Your task to perform on an android device: set default search engine in the chrome app Image 0: 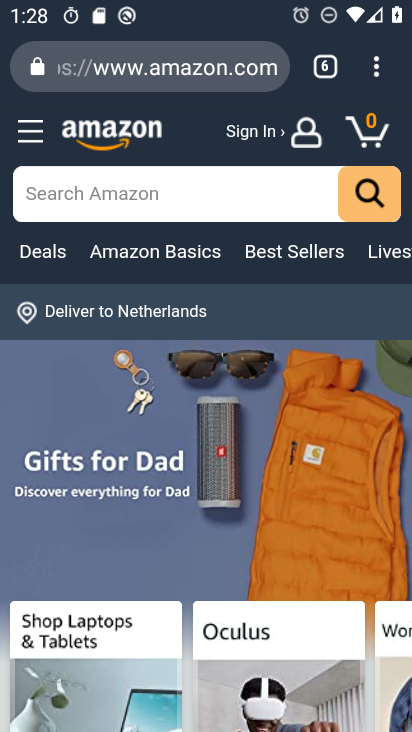
Step 0: click (377, 68)
Your task to perform on an android device: set default search engine in the chrome app Image 1: 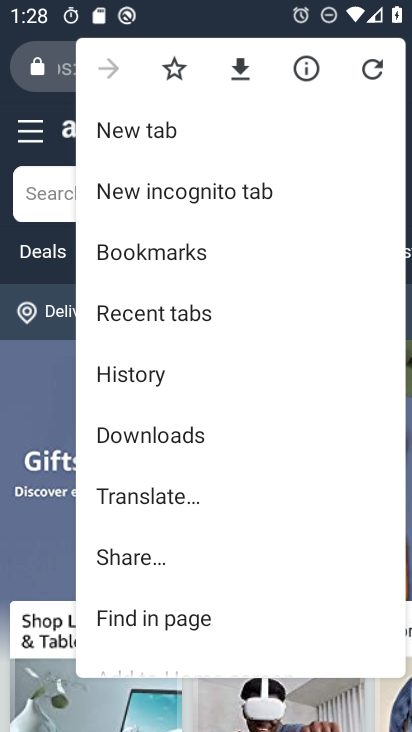
Step 1: click (377, 69)
Your task to perform on an android device: set default search engine in the chrome app Image 2: 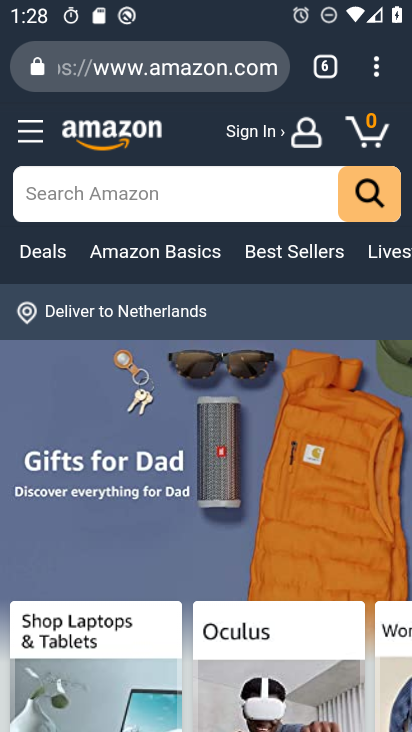
Step 2: click (386, 69)
Your task to perform on an android device: set default search engine in the chrome app Image 3: 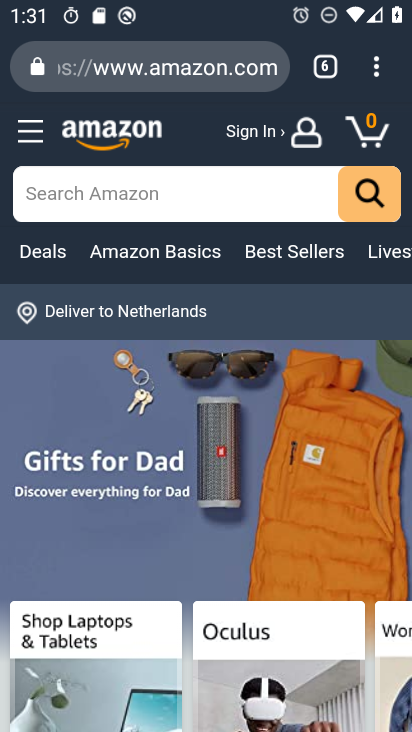
Step 3: click (376, 70)
Your task to perform on an android device: set default search engine in the chrome app Image 4: 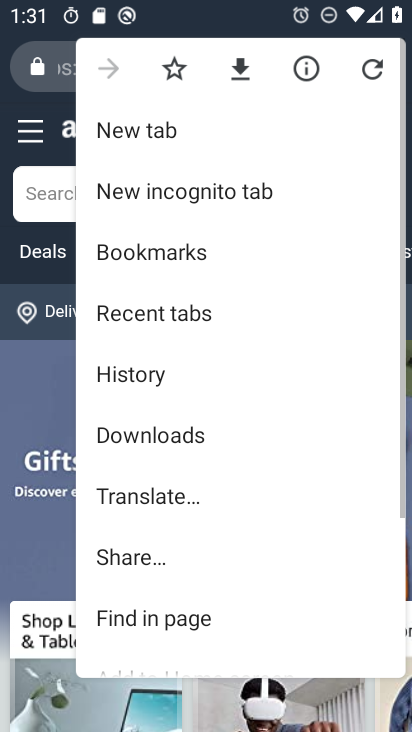
Step 4: drag from (211, 562) to (237, 131)
Your task to perform on an android device: set default search engine in the chrome app Image 5: 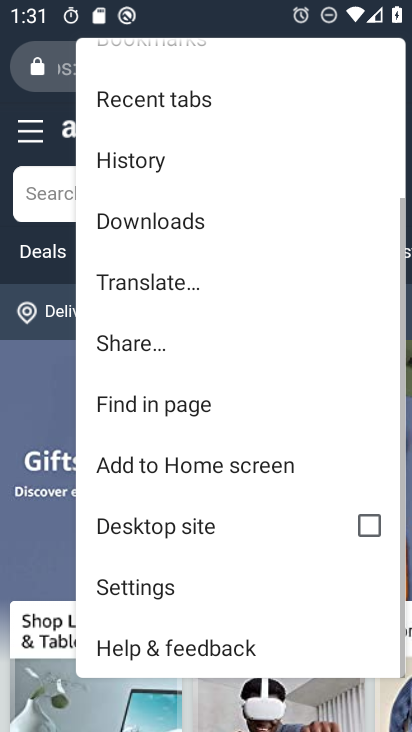
Step 5: click (207, 592)
Your task to perform on an android device: set default search engine in the chrome app Image 6: 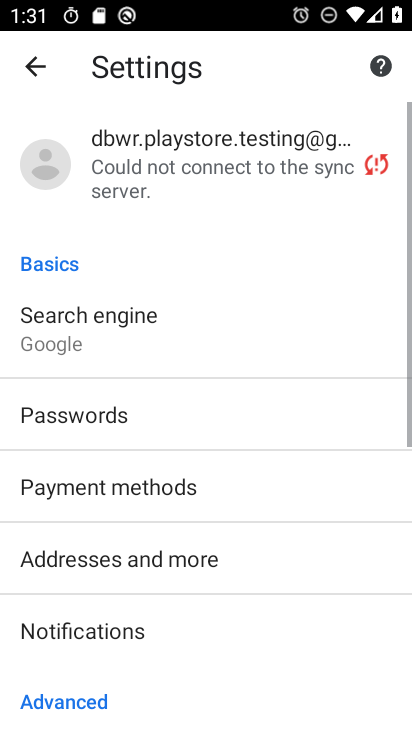
Step 6: drag from (198, 572) to (202, 216)
Your task to perform on an android device: set default search engine in the chrome app Image 7: 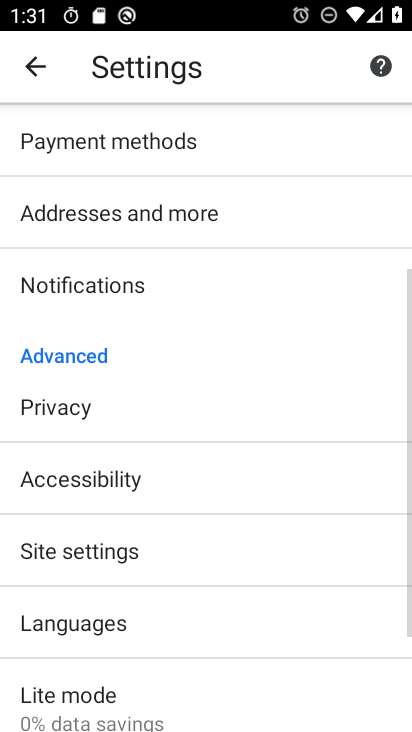
Step 7: drag from (208, 270) to (208, 621)
Your task to perform on an android device: set default search engine in the chrome app Image 8: 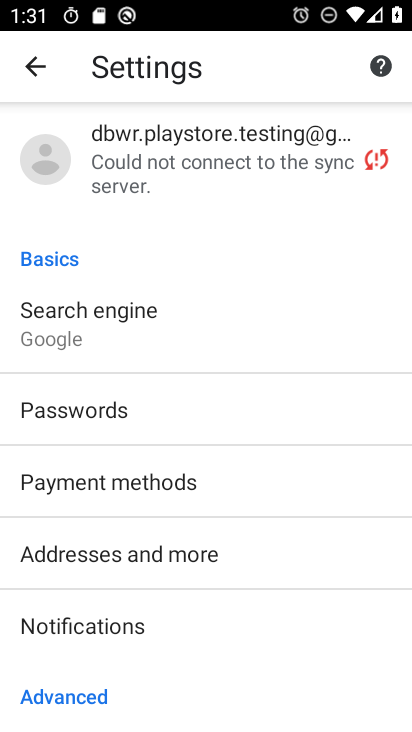
Step 8: click (206, 307)
Your task to perform on an android device: set default search engine in the chrome app Image 9: 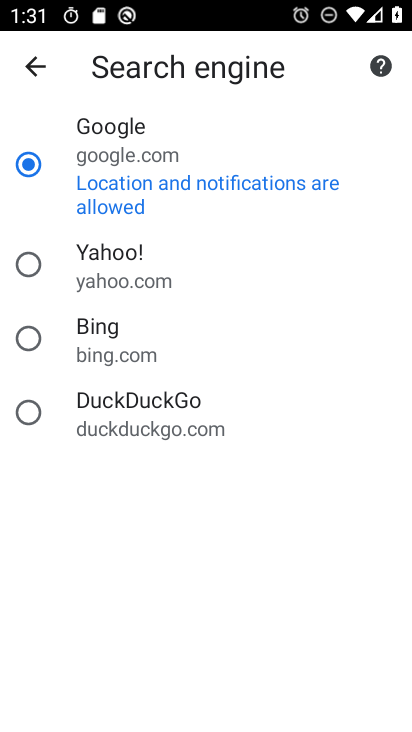
Step 9: task complete